Your task to perform on an android device: move a message to another label in the gmail app Image 0: 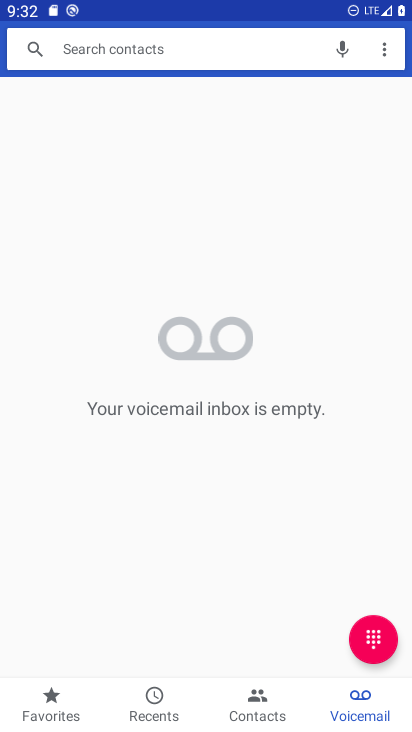
Step 0: press home button
Your task to perform on an android device: move a message to another label in the gmail app Image 1: 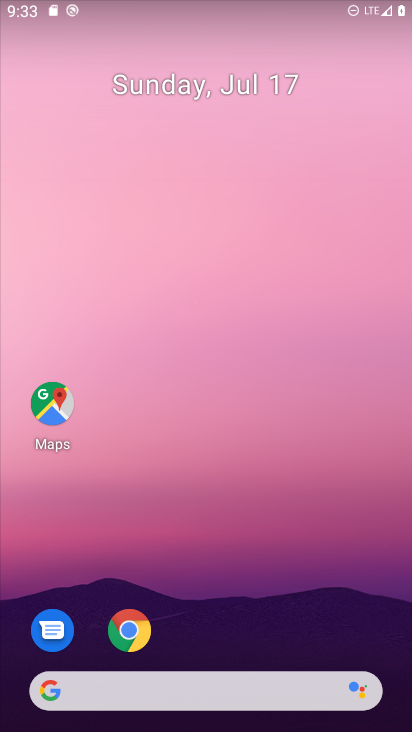
Step 1: drag from (225, 632) to (323, 90)
Your task to perform on an android device: move a message to another label in the gmail app Image 2: 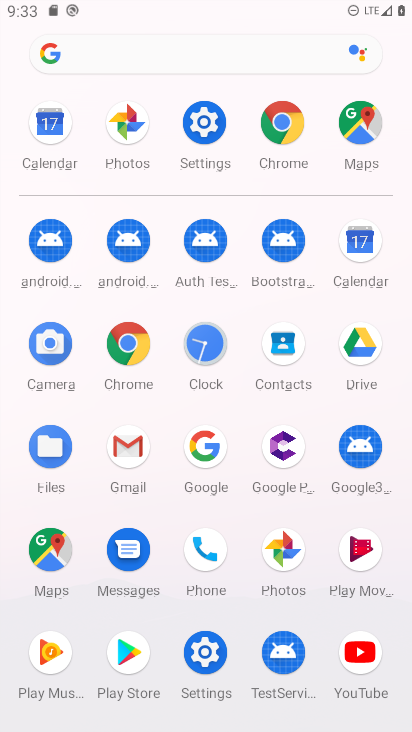
Step 2: click (128, 439)
Your task to perform on an android device: move a message to another label in the gmail app Image 3: 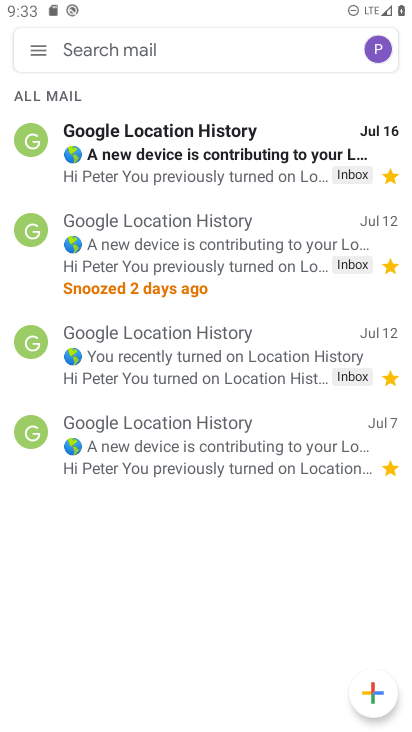
Step 3: click (128, 164)
Your task to perform on an android device: move a message to another label in the gmail app Image 4: 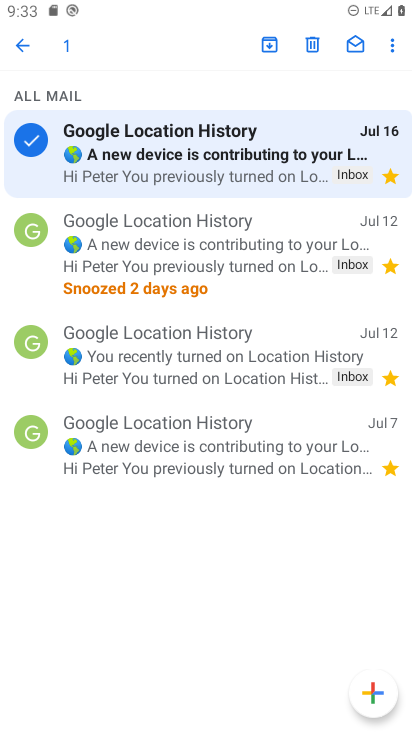
Step 4: click (392, 35)
Your task to perform on an android device: move a message to another label in the gmail app Image 5: 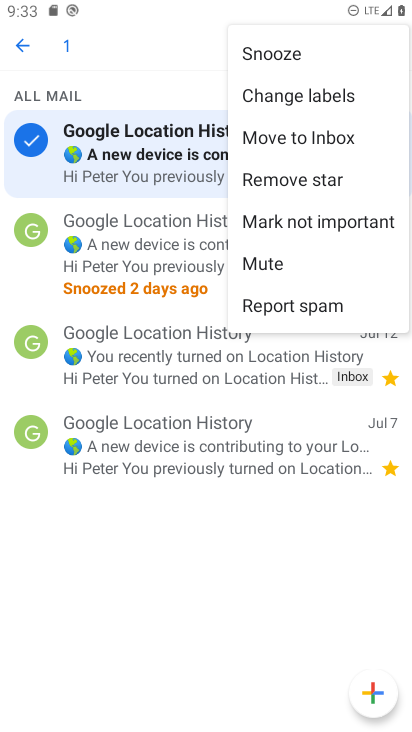
Step 5: click (274, 137)
Your task to perform on an android device: move a message to another label in the gmail app Image 6: 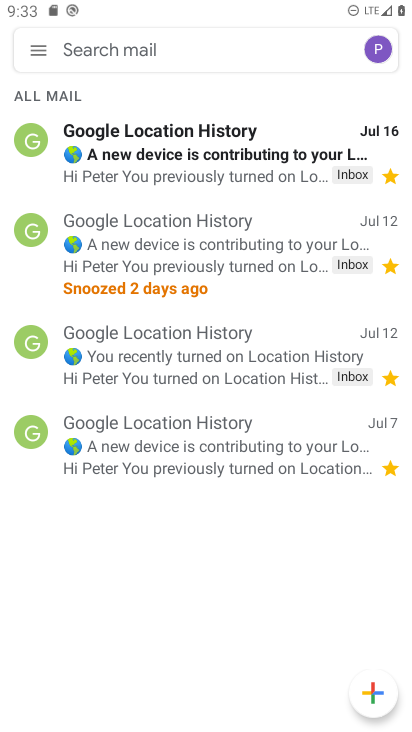
Step 6: click (98, 148)
Your task to perform on an android device: move a message to another label in the gmail app Image 7: 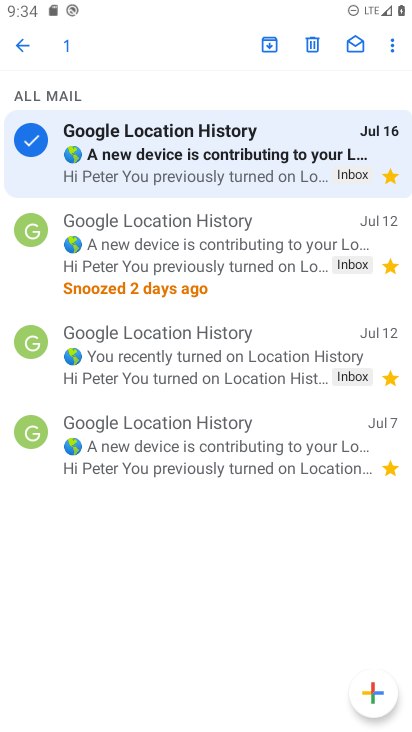
Step 7: click (397, 12)
Your task to perform on an android device: move a message to another label in the gmail app Image 8: 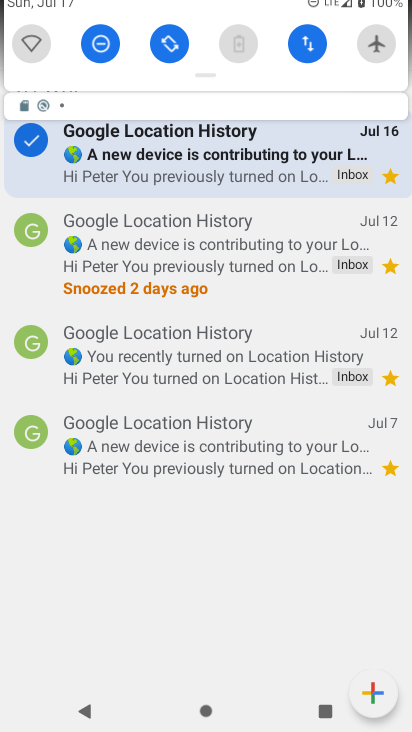
Step 8: click (393, 36)
Your task to perform on an android device: move a message to another label in the gmail app Image 9: 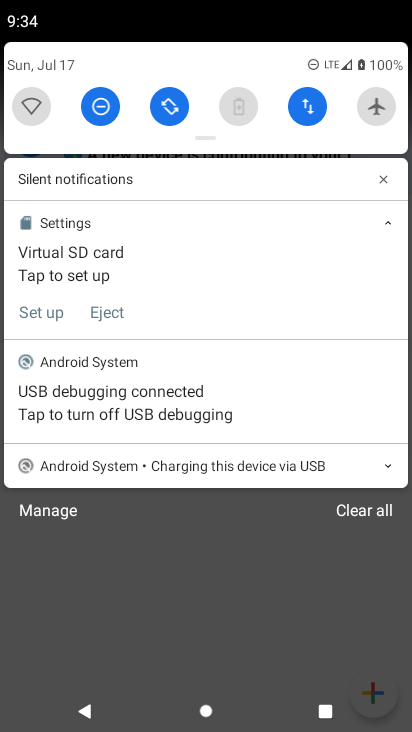
Step 9: click (194, 589)
Your task to perform on an android device: move a message to another label in the gmail app Image 10: 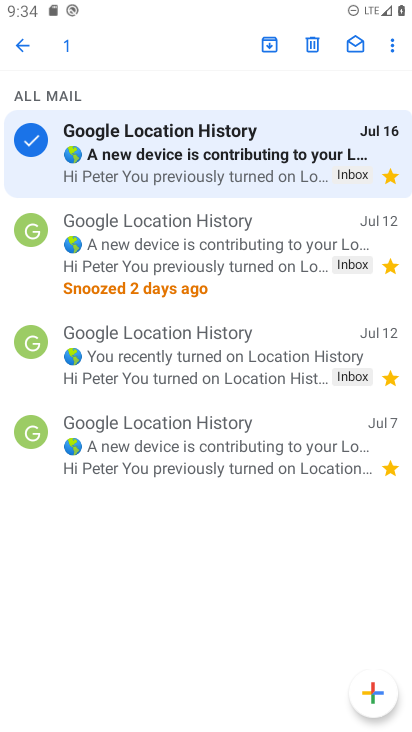
Step 10: click (392, 46)
Your task to perform on an android device: move a message to another label in the gmail app Image 11: 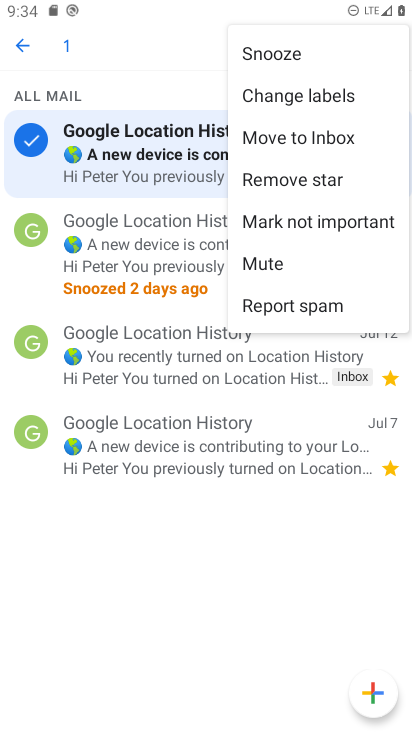
Step 11: click (312, 131)
Your task to perform on an android device: move a message to another label in the gmail app Image 12: 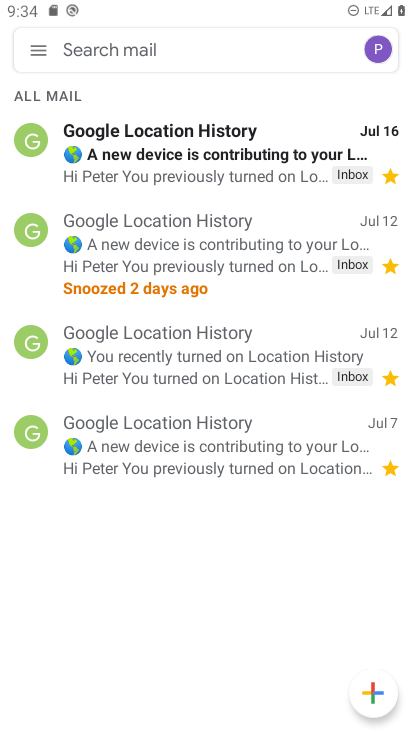
Step 12: click (29, 124)
Your task to perform on an android device: move a message to another label in the gmail app Image 13: 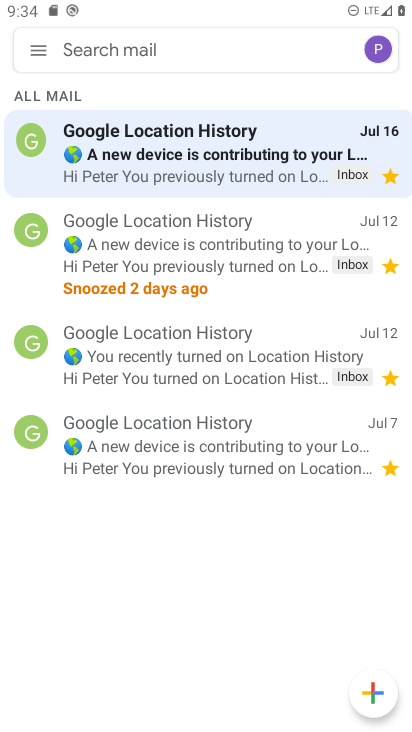
Step 13: click (29, 128)
Your task to perform on an android device: move a message to another label in the gmail app Image 14: 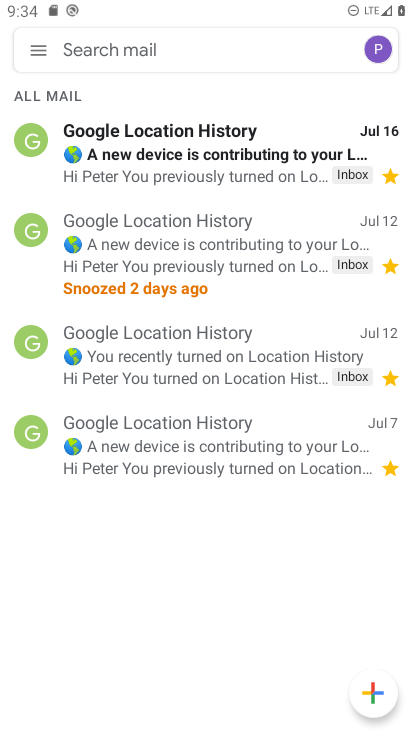
Step 14: click (26, 128)
Your task to perform on an android device: move a message to another label in the gmail app Image 15: 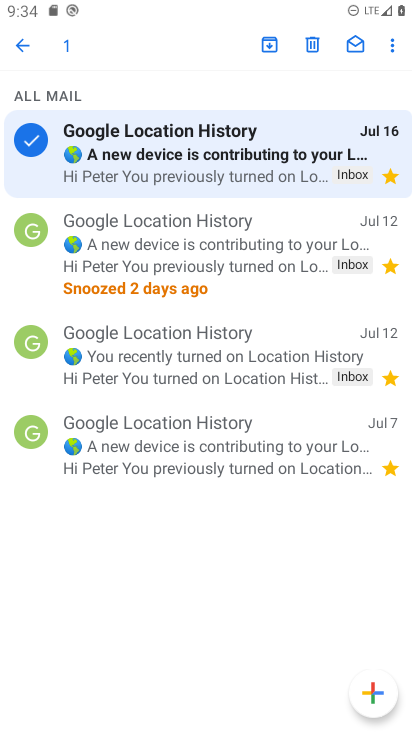
Step 15: click (33, 237)
Your task to perform on an android device: move a message to another label in the gmail app Image 16: 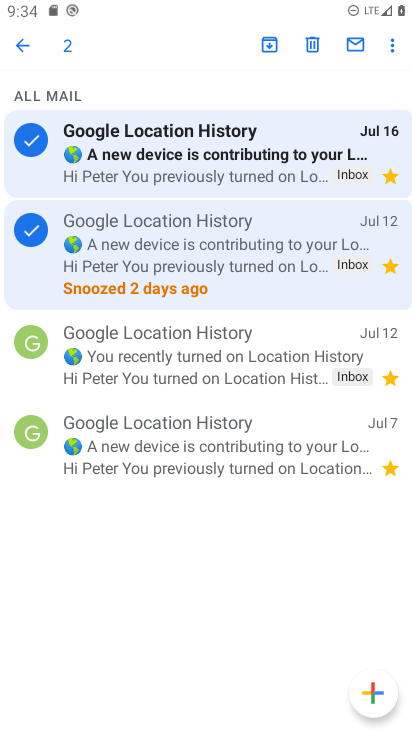
Step 16: click (33, 237)
Your task to perform on an android device: move a message to another label in the gmail app Image 17: 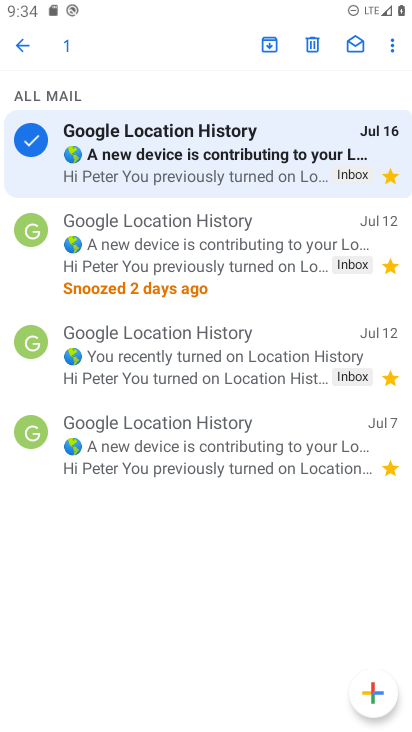
Step 17: click (33, 237)
Your task to perform on an android device: move a message to another label in the gmail app Image 18: 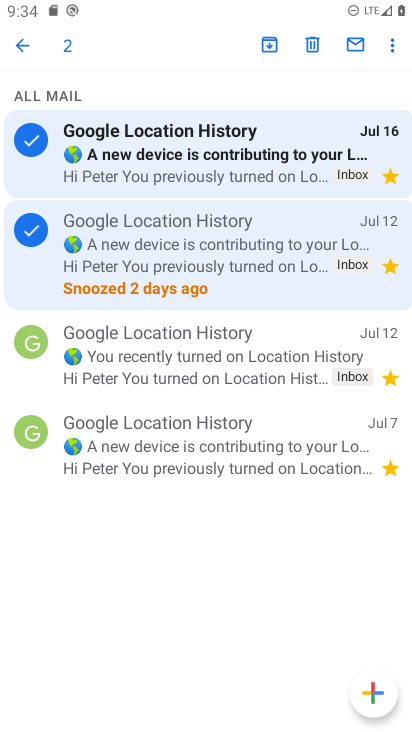
Step 18: click (393, 39)
Your task to perform on an android device: move a message to another label in the gmail app Image 19: 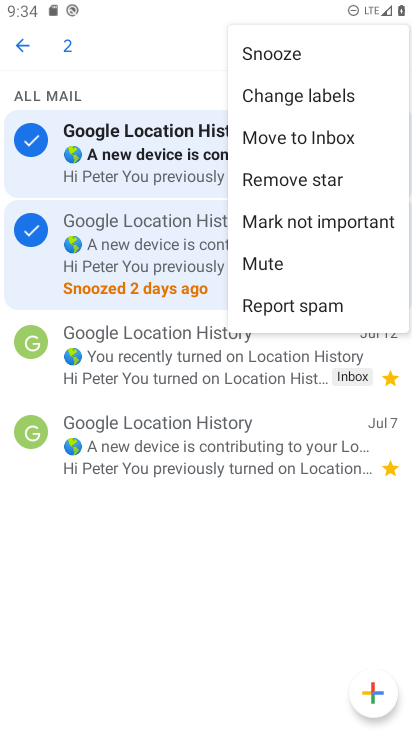
Step 19: click (271, 147)
Your task to perform on an android device: move a message to another label in the gmail app Image 20: 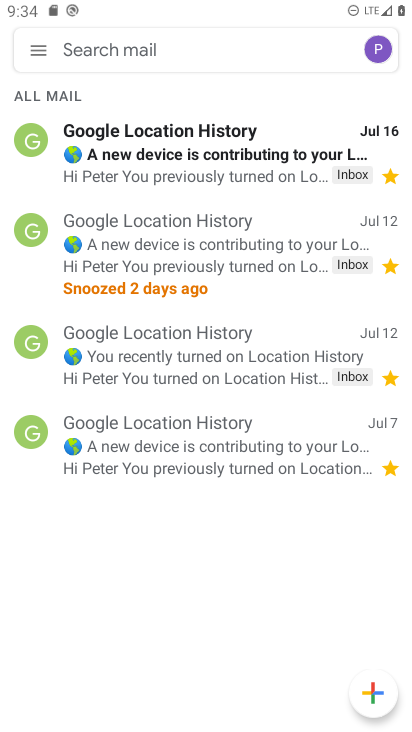
Step 20: task complete